Your task to perform on an android device: turn pop-ups off in chrome Image 0: 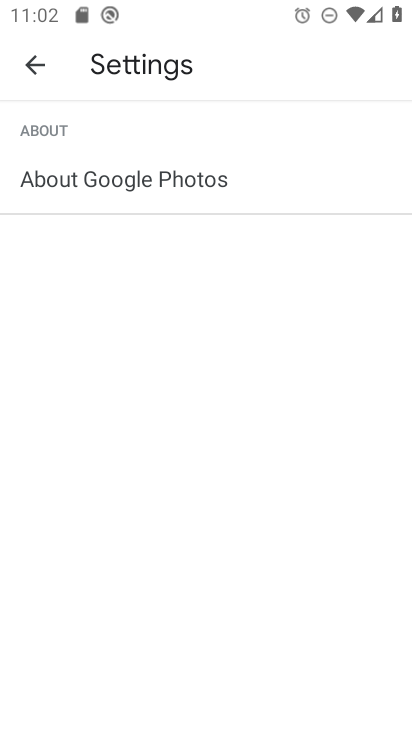
Step 0: press home button
Your task to perform on an android device: turn pop-ups off in chrome Image 1: 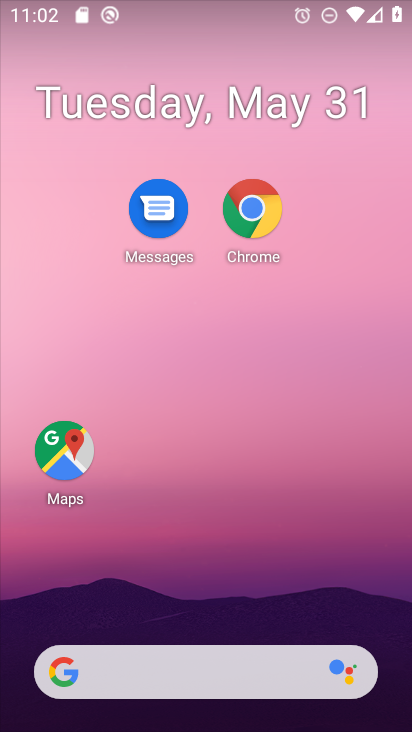
Step 1: click (248, 203)
Your task to perform on an android device: turn pop-ups off in chrome Image 2: 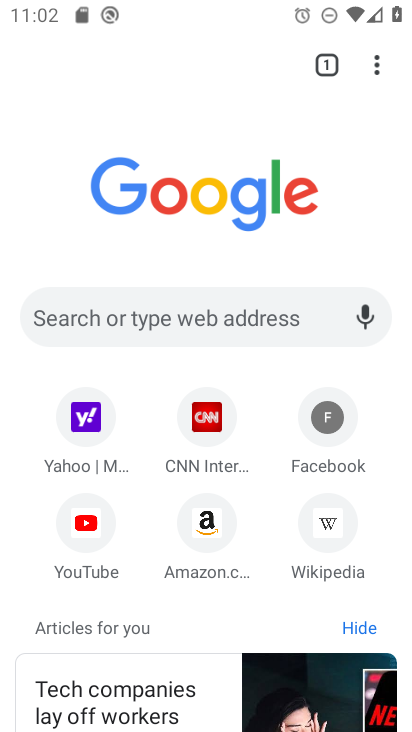
Step 2: click (381, 52)
Your task to perform on an android device: turn pop-ups off in chrome Image 3: 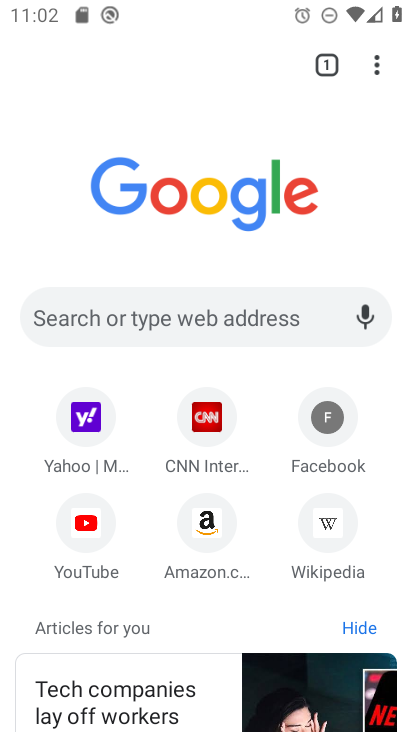
Step 3: click (375, 59)
Your task to perform on an android device: turn pop-ups off in chrome Image 4: 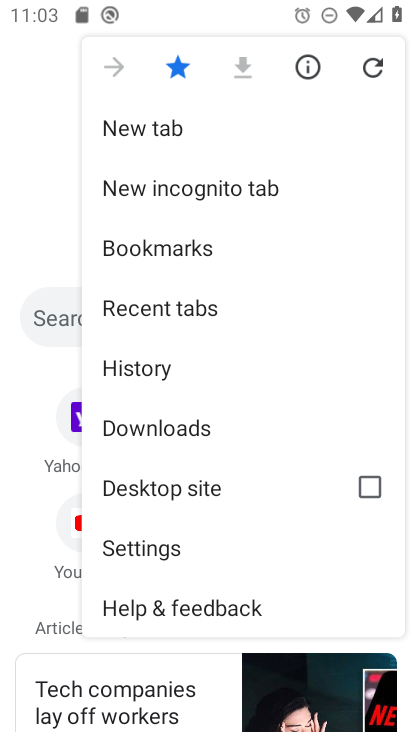
Step 4: click (198, 547)
Your task to perform on an android device: turn pop-ups off in chrome Image 5: 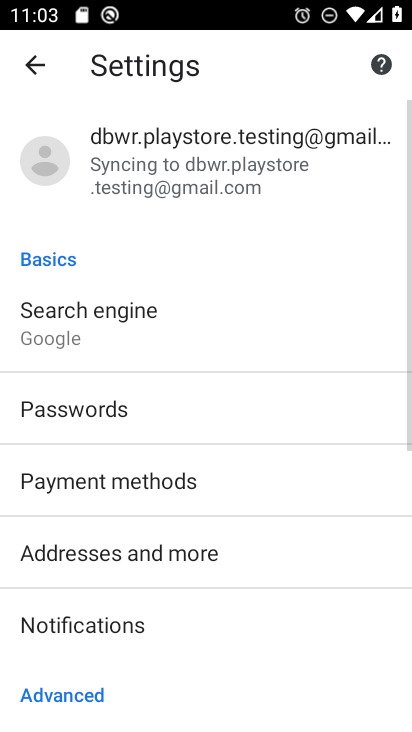
Step 5: drag from (181, 667) to (203, 205)
Your task to perform on an android device: turn pop-ups off in chrome Image 6: 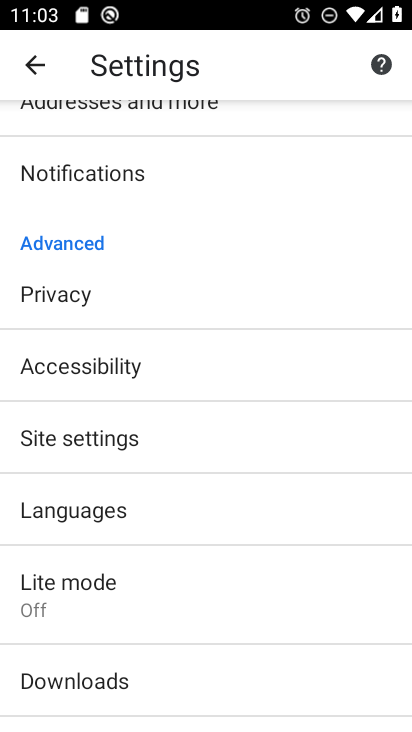
Step 6: click (148, 439)
Your task to perform on an android device: turn pop-ups off in chrome Image 7: 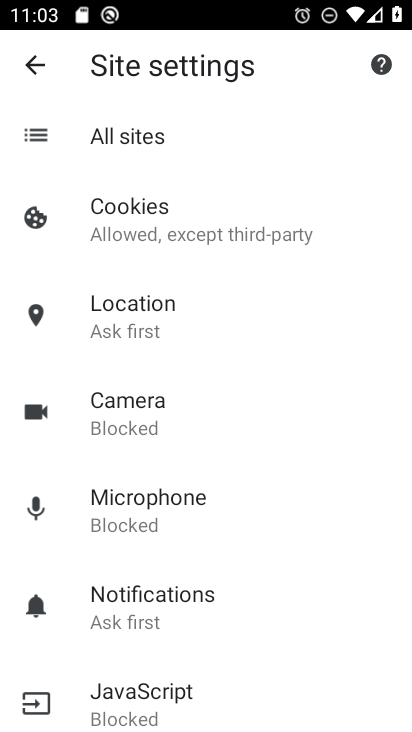
Step 7: drag from (223, 624) to (231, 341)
Your task to perform on an android device: turn pop-ups off in chrome Image 8: 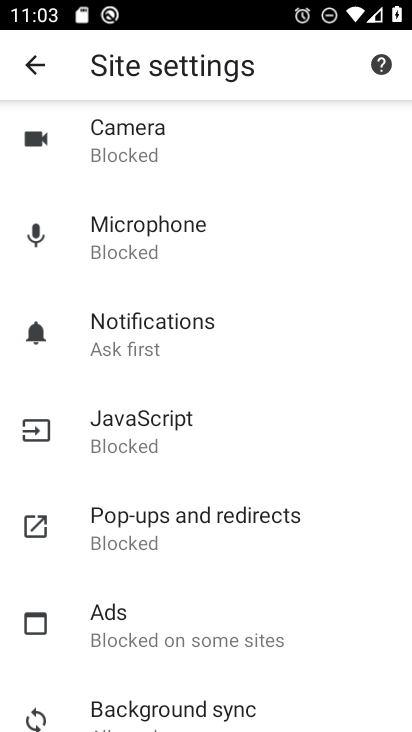
Step 8: click (185, 536)
Your task to perform on an android device: turn pop-ups off in chrome Image 9: 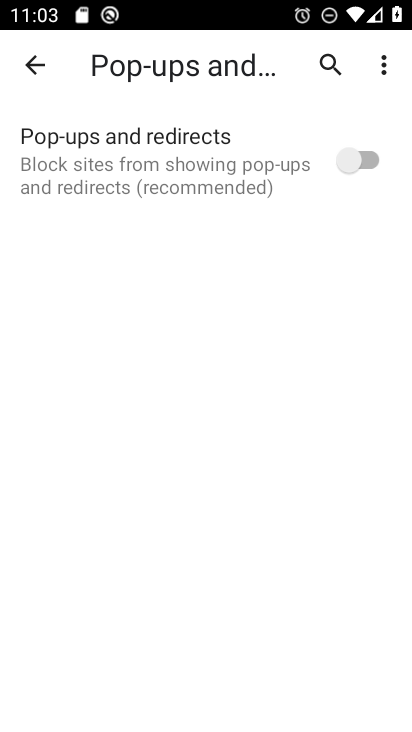
Step 9: task complete